Your task to perform on an android device: Open display settings Image 0: 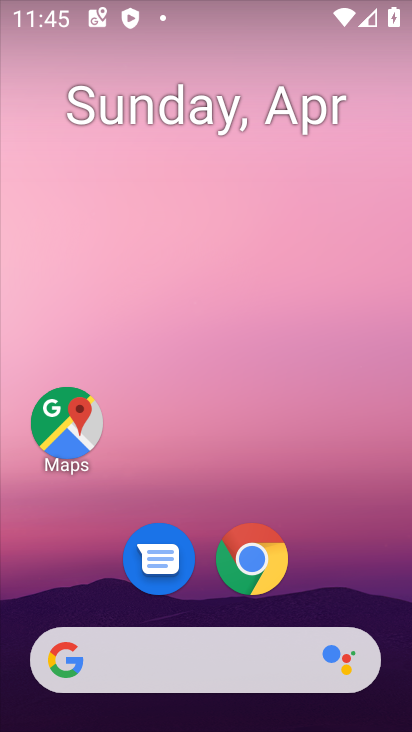
Step 0: drag from (361, 571) to (268, 277)
Your task to perform on an android device: Open display settings Image 1: 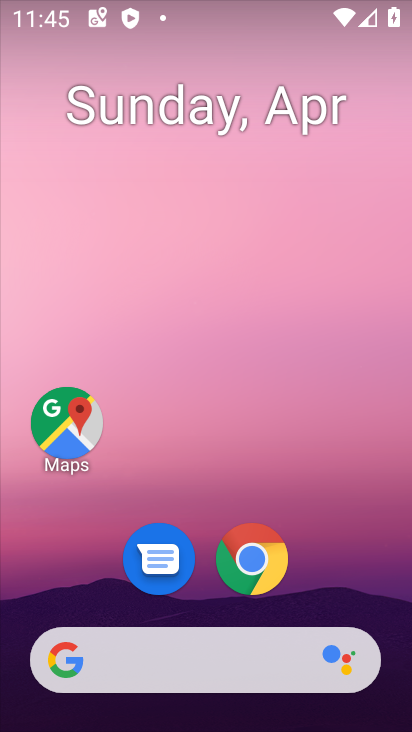
Step 1: drag from (317, 584) to (280, 194)
Your task to perform on an android device: Open display settings Image 2: 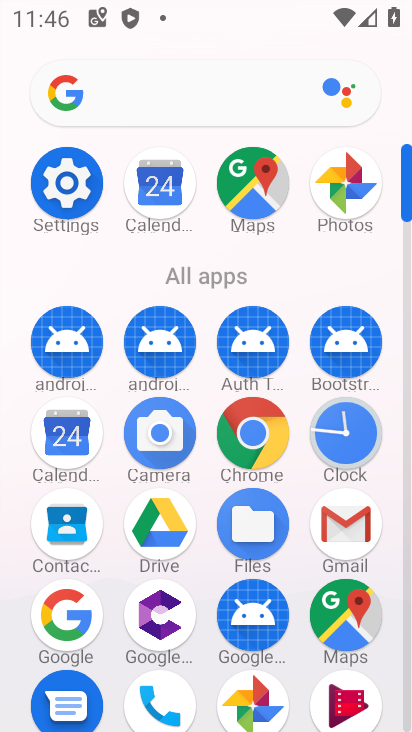
Step 2: click (40, 182)
Your task to perform on an android device: Open display settings Image 3: 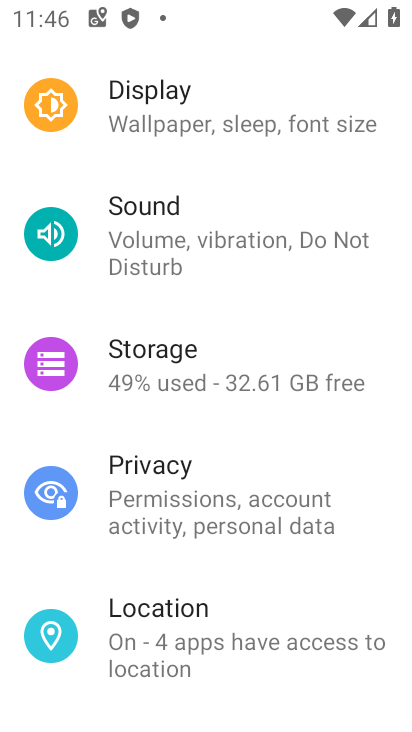
Step 3: click (183, 120)
Your task to perform on an android device: Open display settings Image 4: 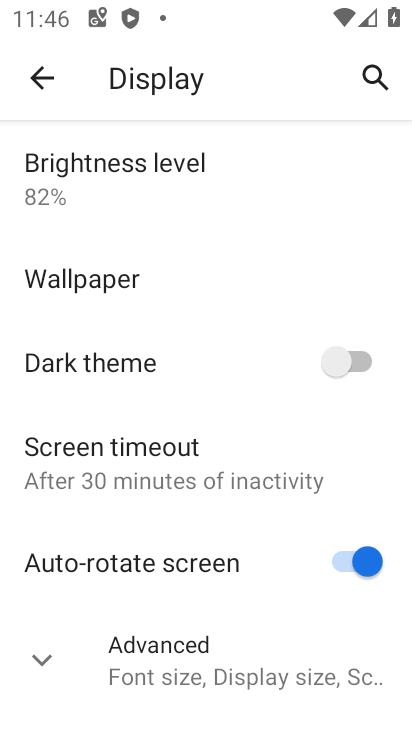
Step 4: task complete